Your task to perform on an android device: turn on the 24-hour format for clock Image 0: 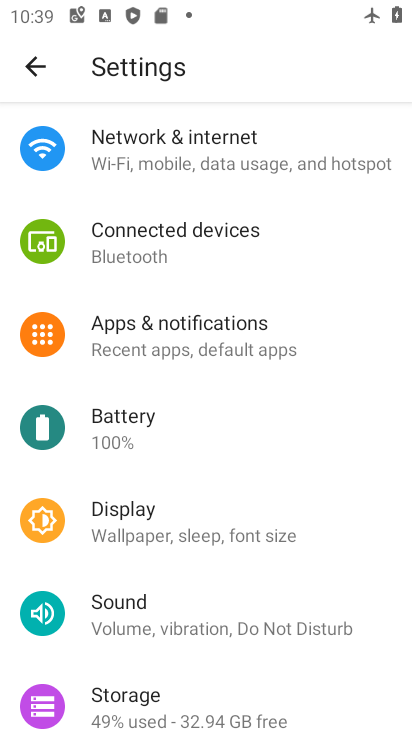
Step 0: press home button
Your task to perform on an android device: turn on the 24-hour format for clock Image 1: 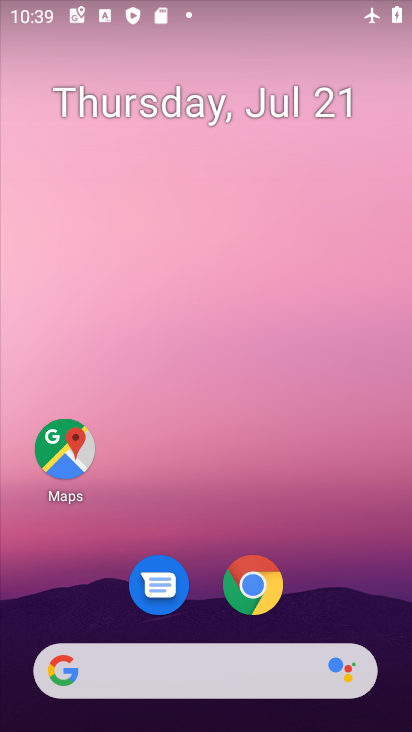
Step 1: drag from (334, 514) to (383, 62)
Your task to perform on an android device: turn on the 24-hour format for clock Image 2: 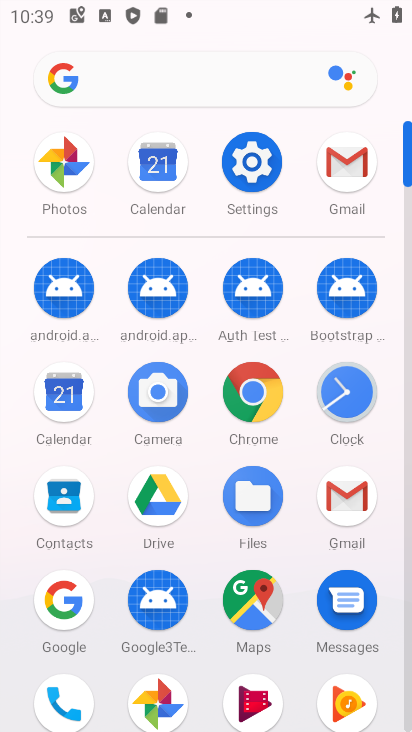
Step 2: click (345, 398)
Your task to perform on an android device: turn on the 24-hour format for clock Image 3: 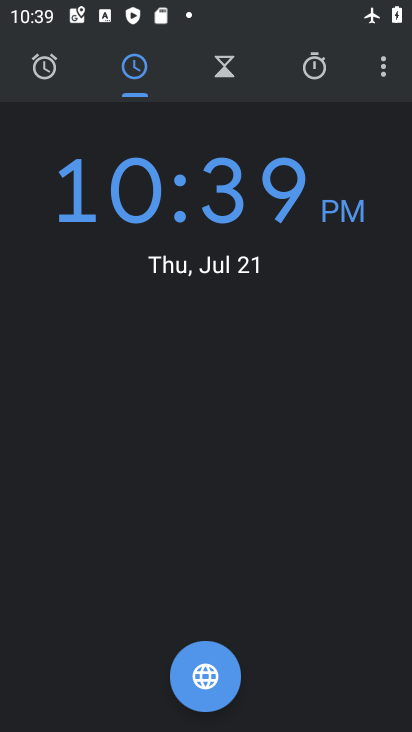
Step 3: click (384, 66)
Your task to perform on an android device: turn on the 24-hour format for clock Image 4: 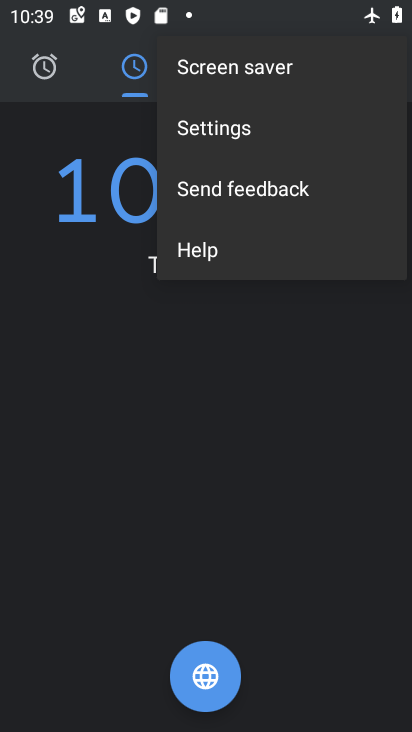
Step 4: click (239, 126)
Your task to perform on an android device: turn on the 24-hour format for clock Image 5: 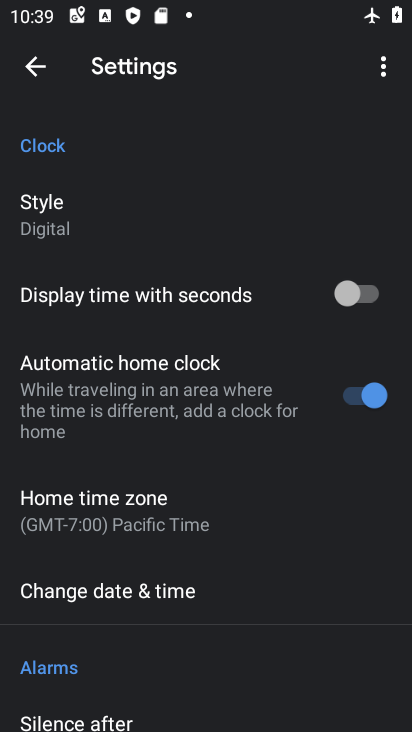
Step 5: click (227, 594)
Your task to perform on an android device: turn on the 24-hour format for clock Image 6: 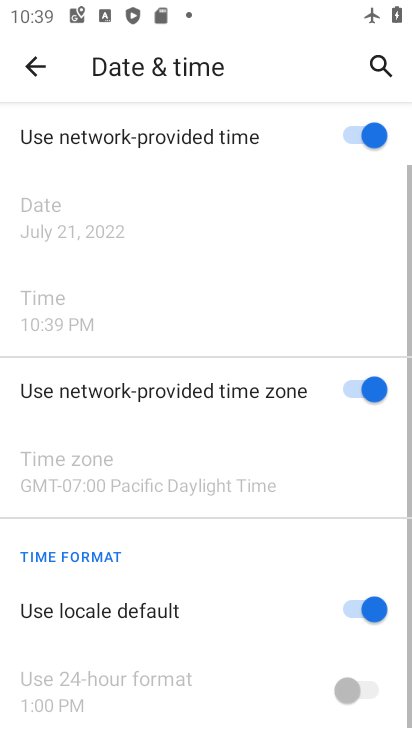
Step 6: drag from (262, 585) to (297, 227)
Your task to perform on an android device: turn on the 24-hour format for clock Image 7: 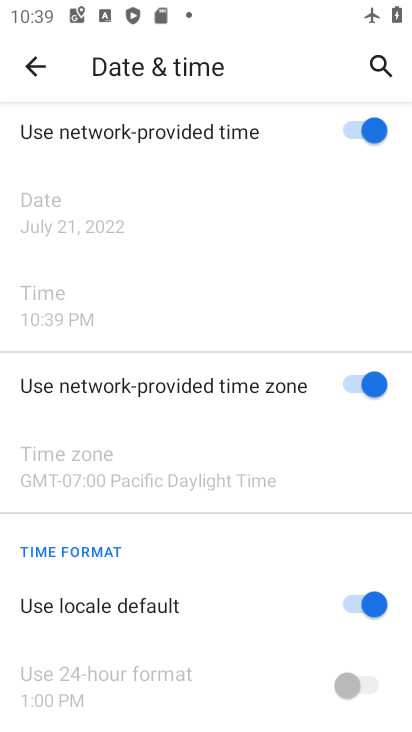
Step 7: click (354, 608)
Your task to perform on an android device: turn on the 24-hour format for clock Image 8: 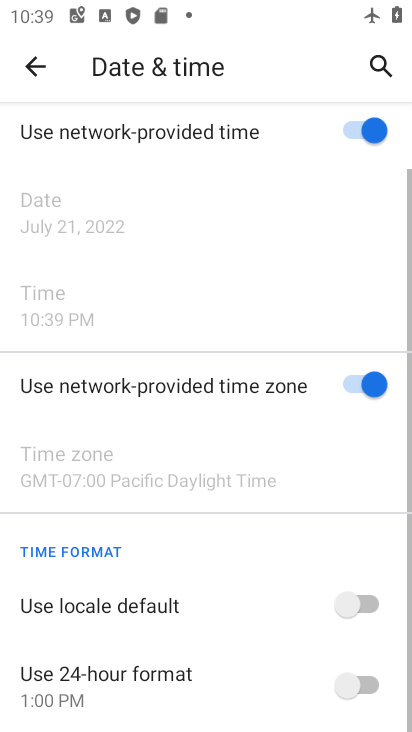
Step 8: click (361, 679)
Your task to perform on an android device: turn on the 24-hour format for clock Image 9: 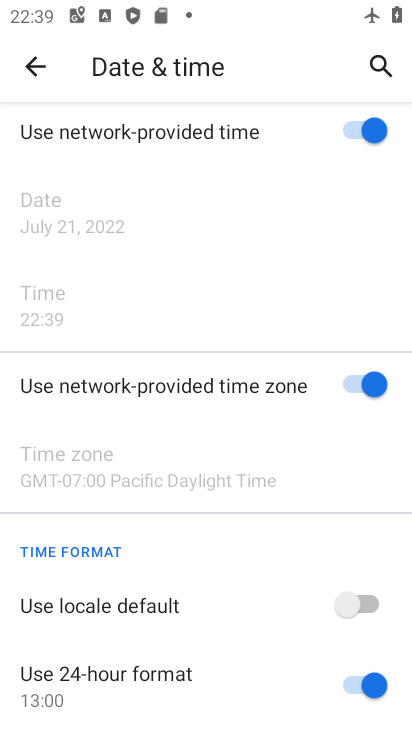
Step 9: task complete